Your task to perform on an android device: open a bookmark in the chrome app Image 0: 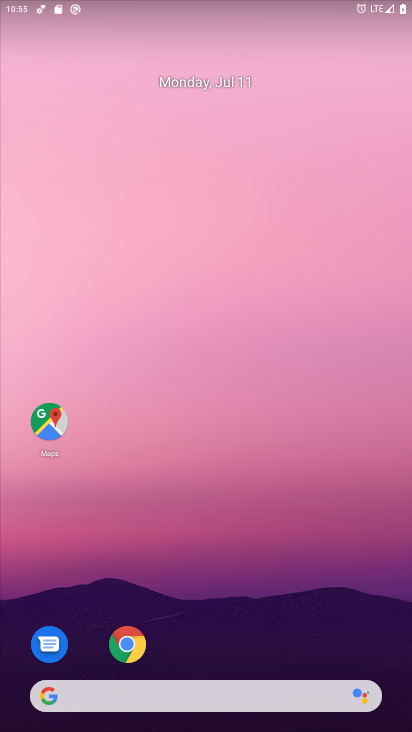
Step 0: drag from (245, 684) to (245, 351)
Your task to perform on an android device: open a bookmark in the chrome app Image 1: 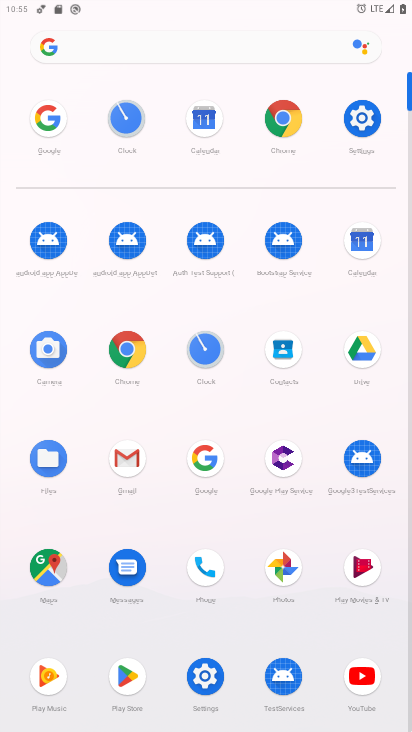
Step 1: click (289, 124)
Your task to perform on an android device: open a bookmark in the chrome app Image 2: 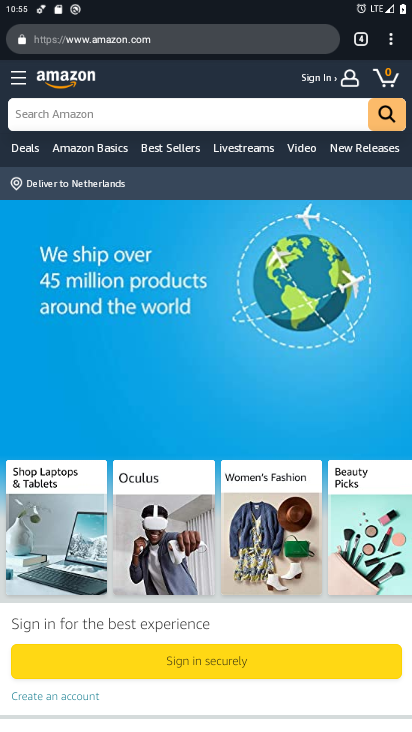
Step 2: click (386, 38)
Your task to perform on an android device: open a bookmark in the chrome app Image 3: 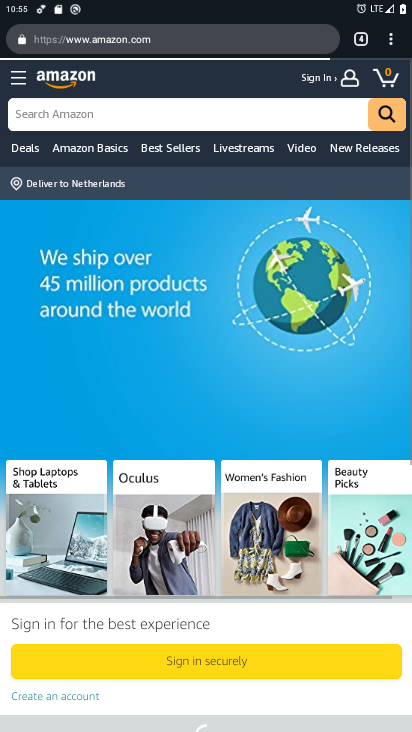
Step 3: click (401, 38)
Your task to perform on an android device: open a bookmark in the chrome app Image 4: 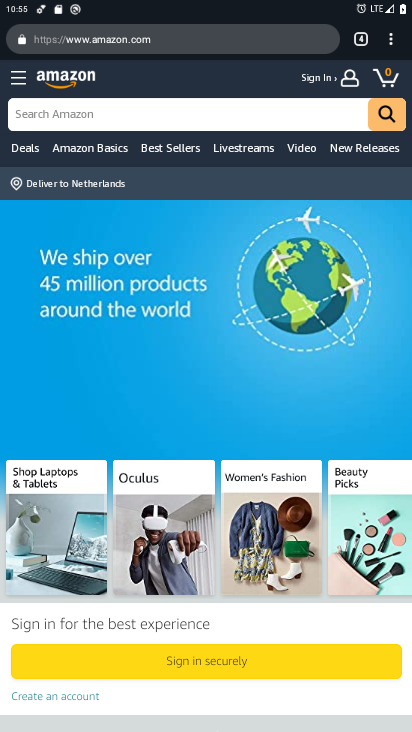
Step 4: click (401, 38)
Your task to perform on an android device: open a bookmark in the chrome app Image 5: 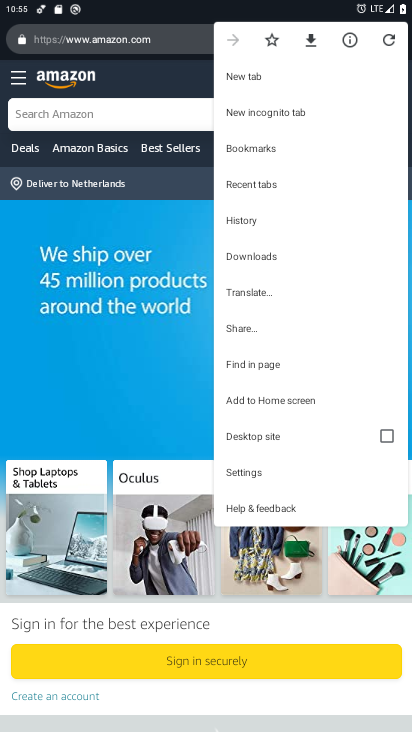
Step 5: click (292, 151)
Your task to perform on an android device: open a bookmark in the chrome app Image 6: 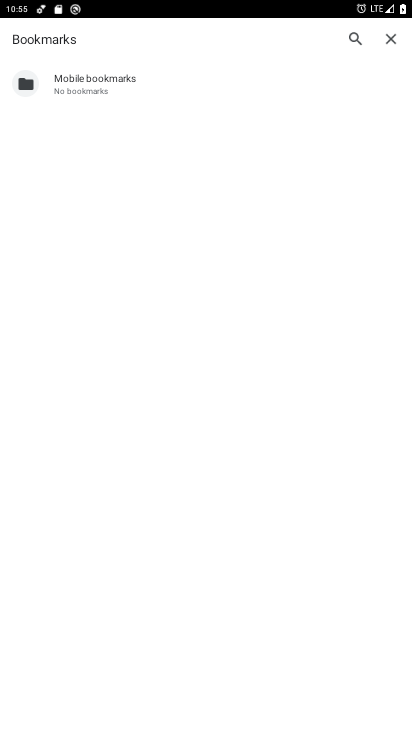
Step 6: click (39, 80)
Your task to perform on an android device: open a bookmark in the chrome app Image 7: 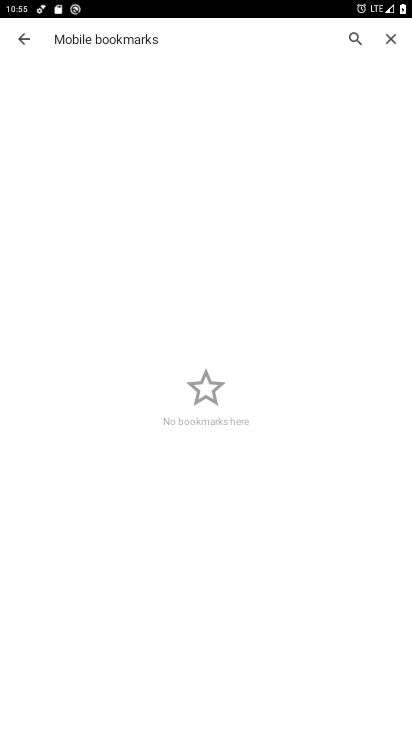
Step 7: task complete